Your task to perform on an android device: open a new tab in the chrome app Image 0: 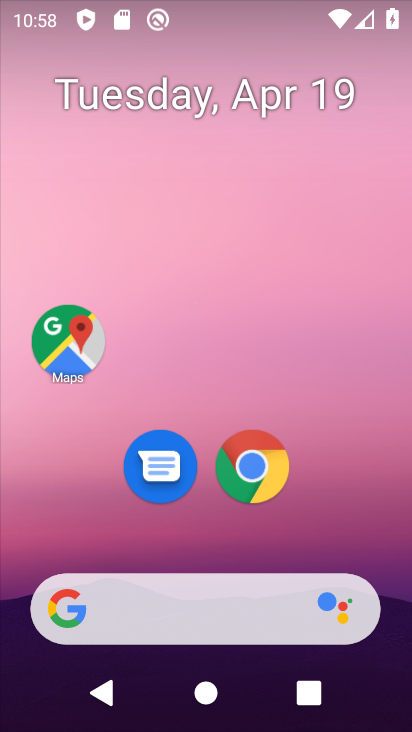
Step 0: drag from (172, 567) to (268, 120)
Your task to perform on an android device: open a new tab in the chrome app Image 1: 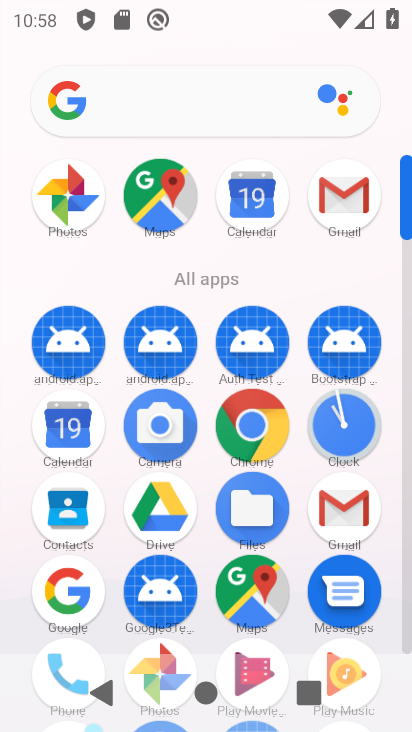
Step 1: click (256, 418)
Your task to perform on an android device: open a new tab in the chrome app Image 2: 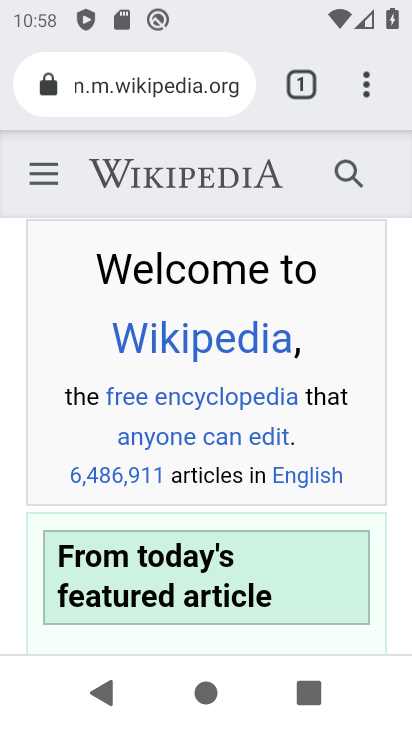
Step 2: click (351, 91)
Your task to perform on an android device: open a new tab in the chrome app Image 3: 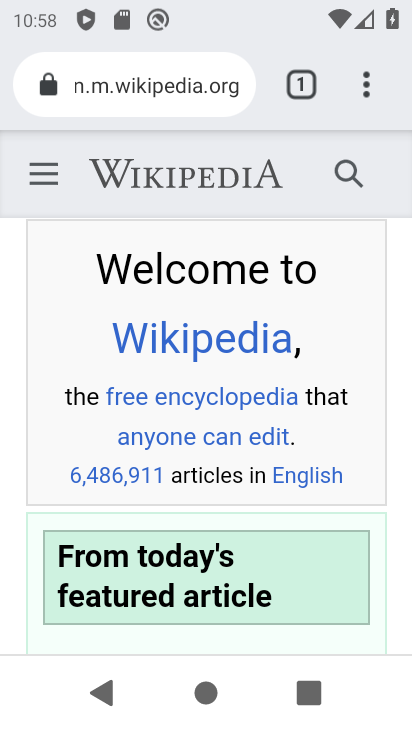
Step 3: task complete